Your task to perform on an android device: check storage Image 0: 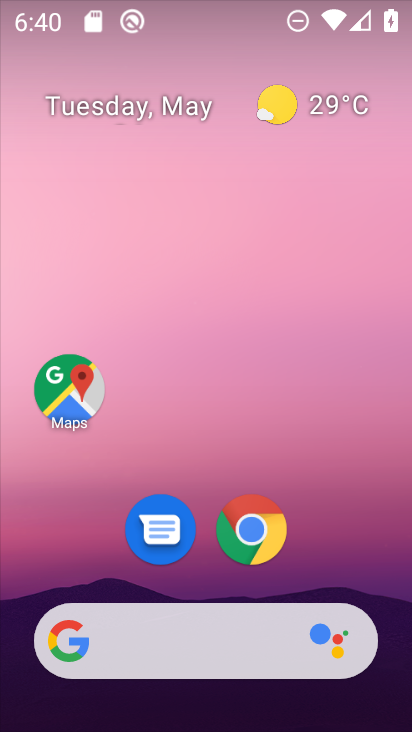
Step 0: drag from (386, 616) to (349, 59)
Your task to perform on an android device: check storage Image 1: 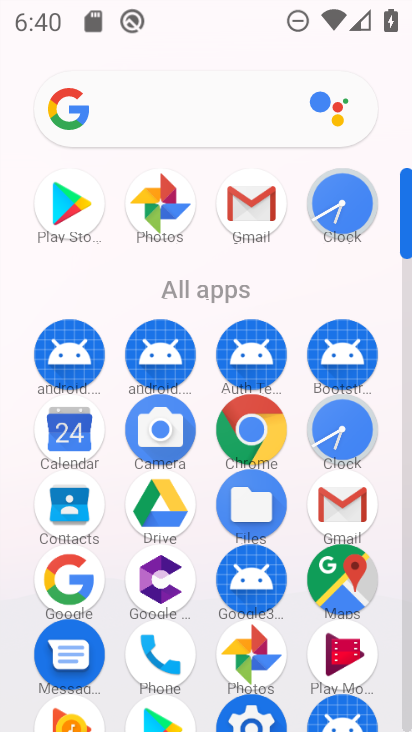
Step 1: click (243, 709)
Your task to perform on an android device: check storage Image 2: 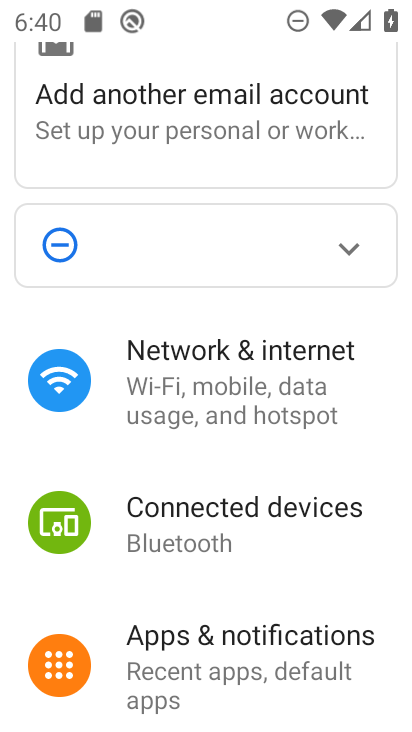
Step 2: drag from (240, 603) to (253, 35)
Your task to perform on an android device: check storage Image 3: 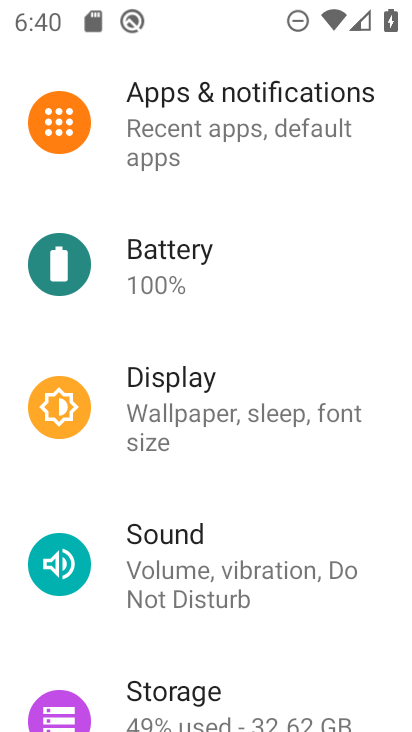
Step 3: click (171, 693)
Your task to perform on an android device: check storage Image 4: 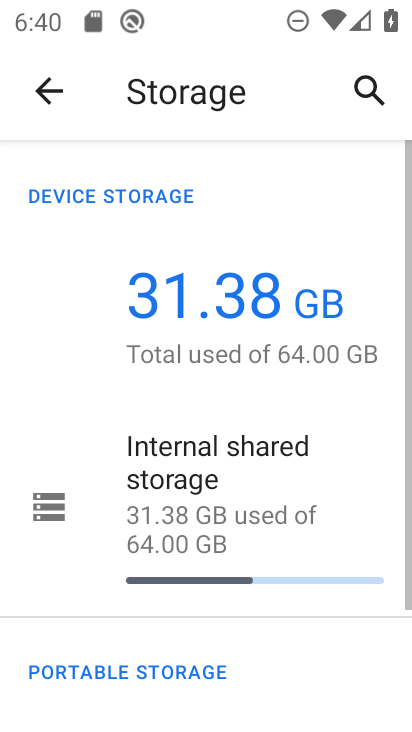
Step 4: click (203, 520)
Your task to perform on an android device: check storage Image 5: 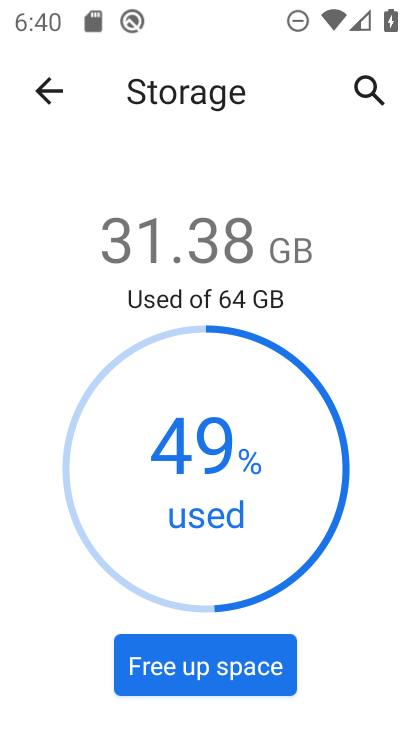
Step 5: task complete